Your task to perform on an android device: Open calendar and show me the first week of next month Image 0: 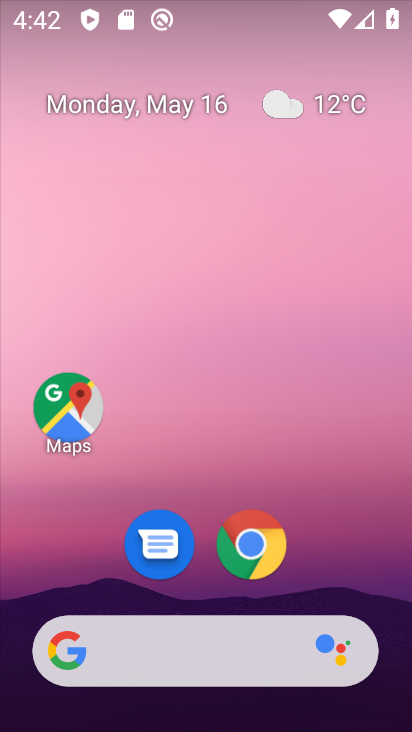
Step 0: drag from (322, 538) to (193, 99)
Your task to perform on an android device: Open calendar and show me the first week of next month Image 1: 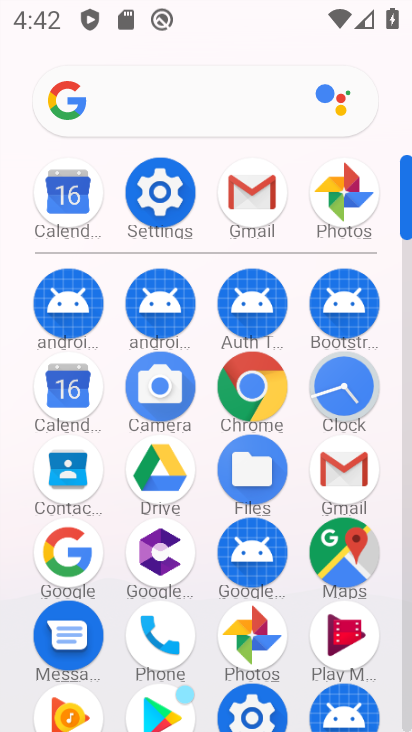
Step 1: click (67, 386)
Your task to perform on an android device: Open calendar and show me the first week of next month Image 2: 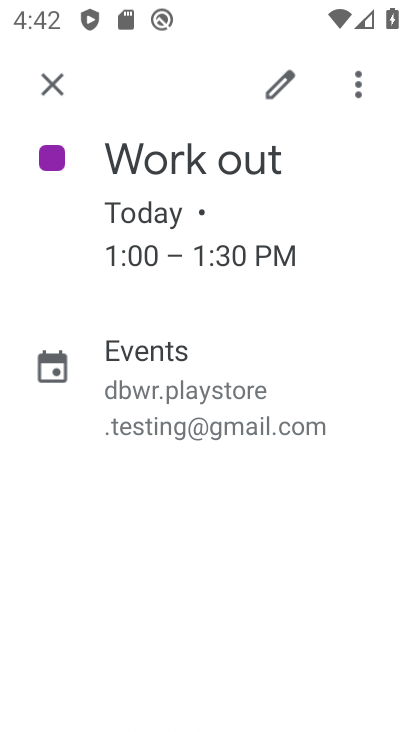
Step 2: click (52, 84)
Your task to perform on an android device: Open calendar and show me the first week of next month Image 3: 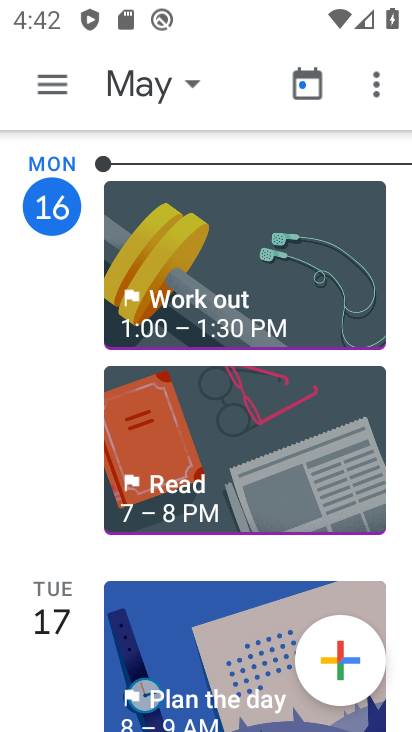
Step 3: click (192, 84)
Your task to perform on an android device: Open calendar and show me the first week of next month Image 4: 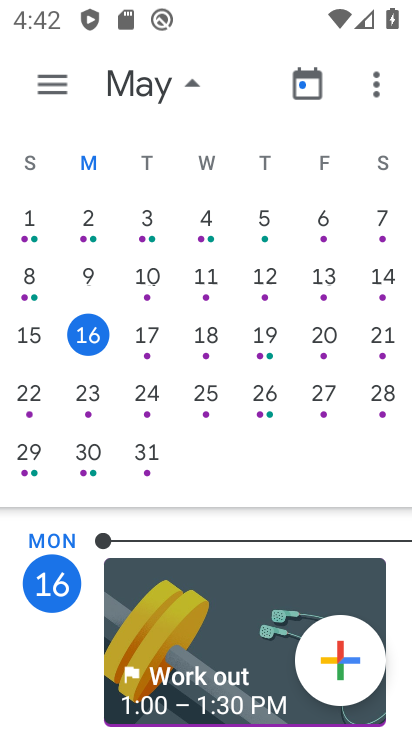
Step 4: drag from (345, 352) to (0, 357)
Your task to perform on an android device: Open calendar and show me the first week of next month Image 5: 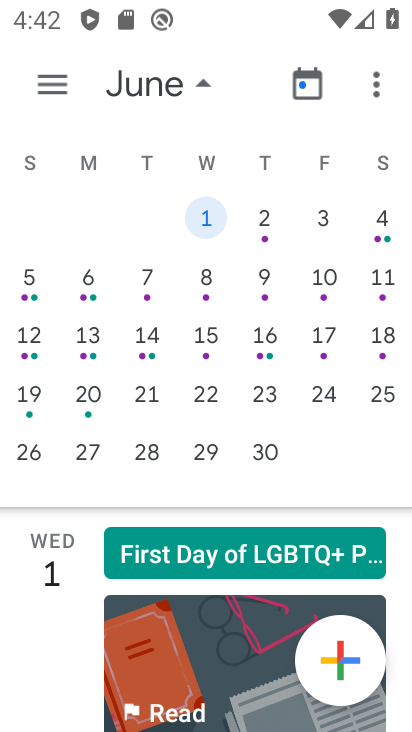
Step 5: click (84, 273)
Your task to perform on an android device: Open calendar and show me the first week of next month Image 6: 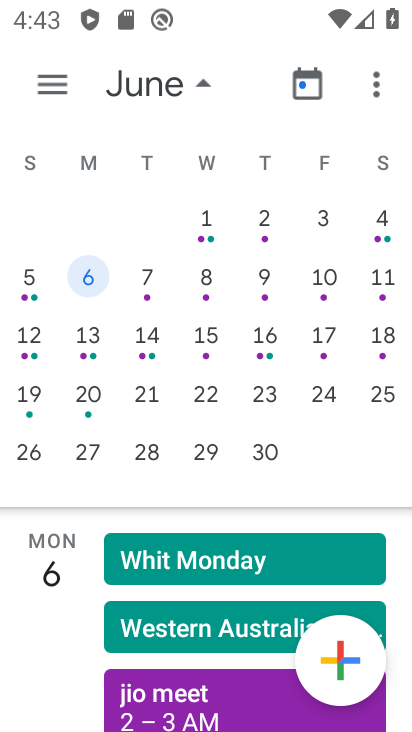
Step 6: click (49, 76)
Your task to perform on an android device: Open calendar and show me the first week of next month Image 7: 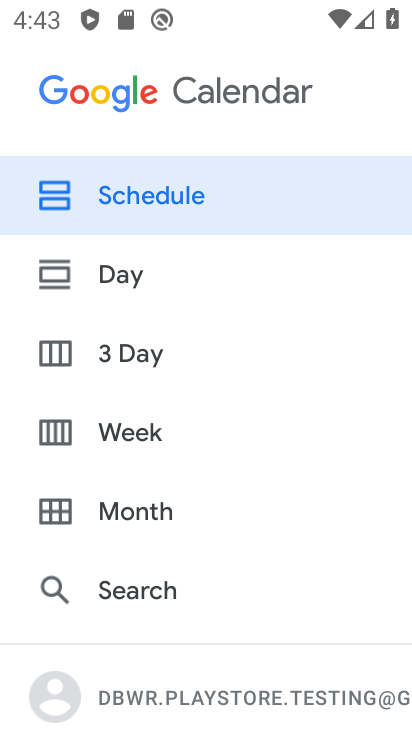
Step 7: click (127, 432)
Your task to perform on an android device: Open calendar and show me the first week of next month Image 8: 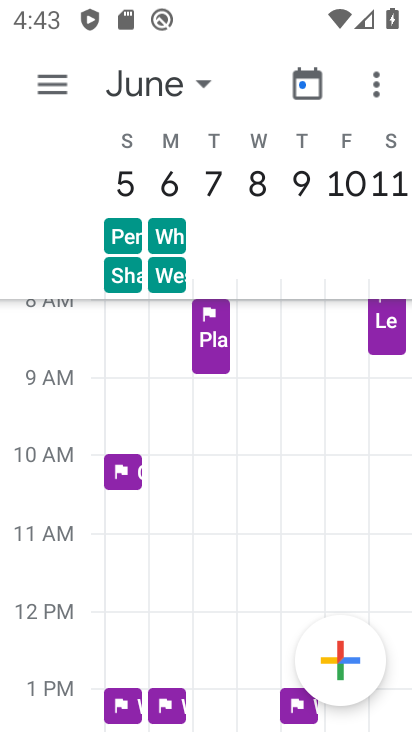
Step 8: task complete